Your task to perform on an android device: Open Amazon Image 0: 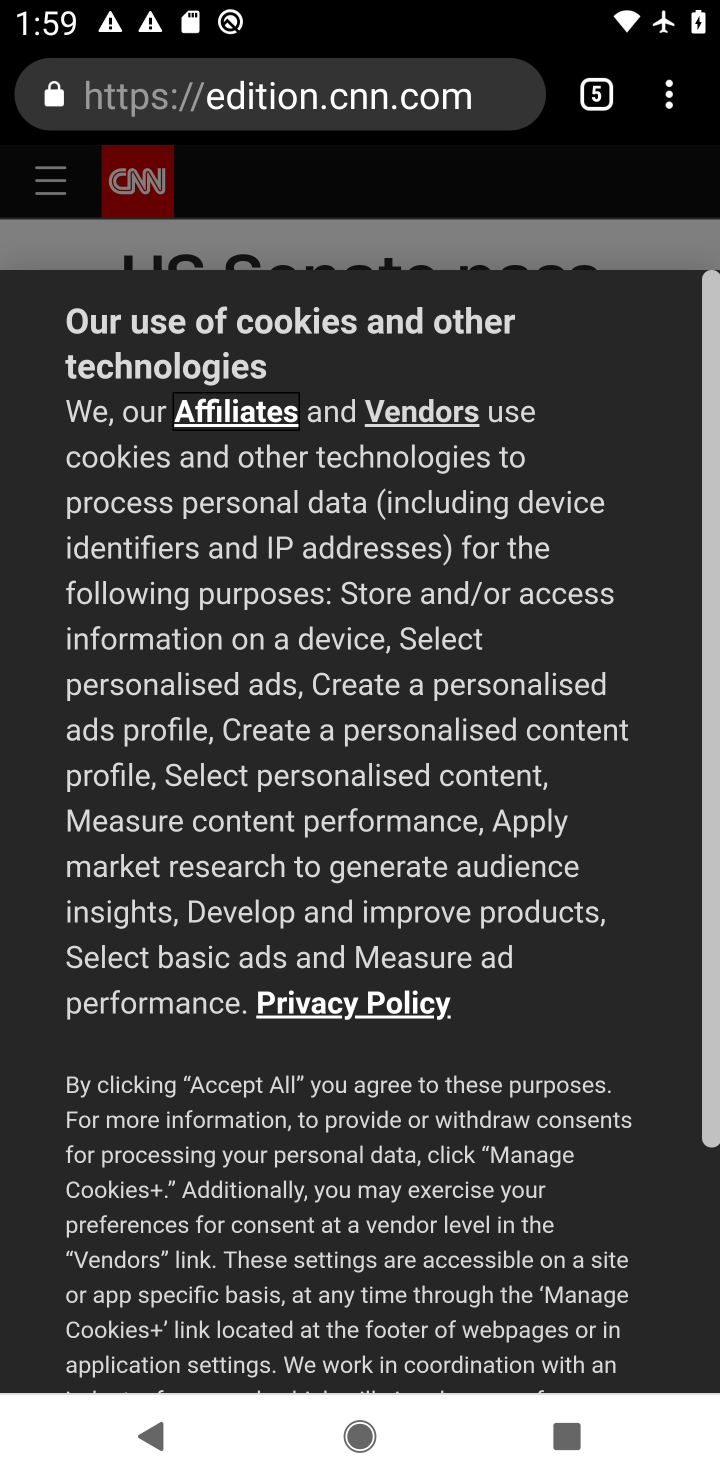
Step 0: click (360, 114)
Your task to perform on an android device: Open Amazon Image 1: 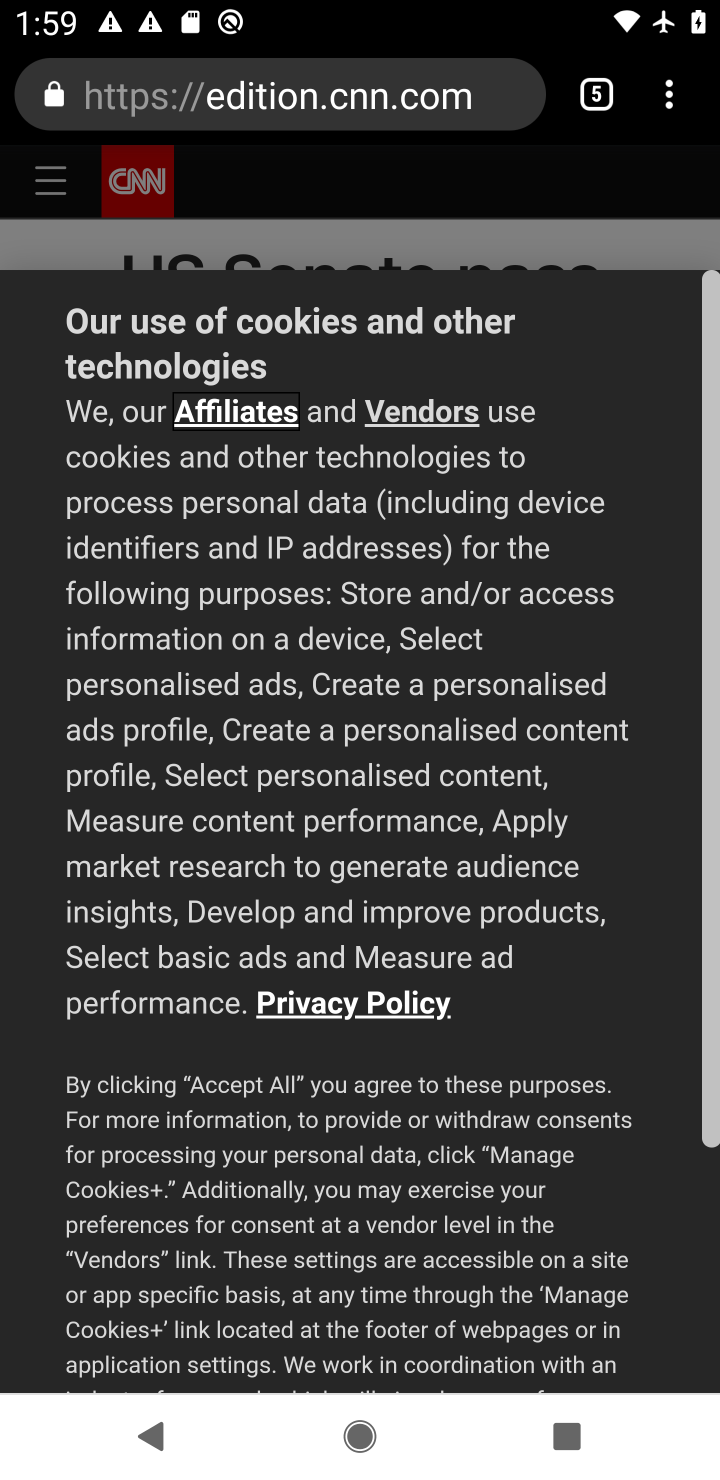
Step 1: click (360, 114)
Your task to perform on an android device: Open Amazon Image 2: 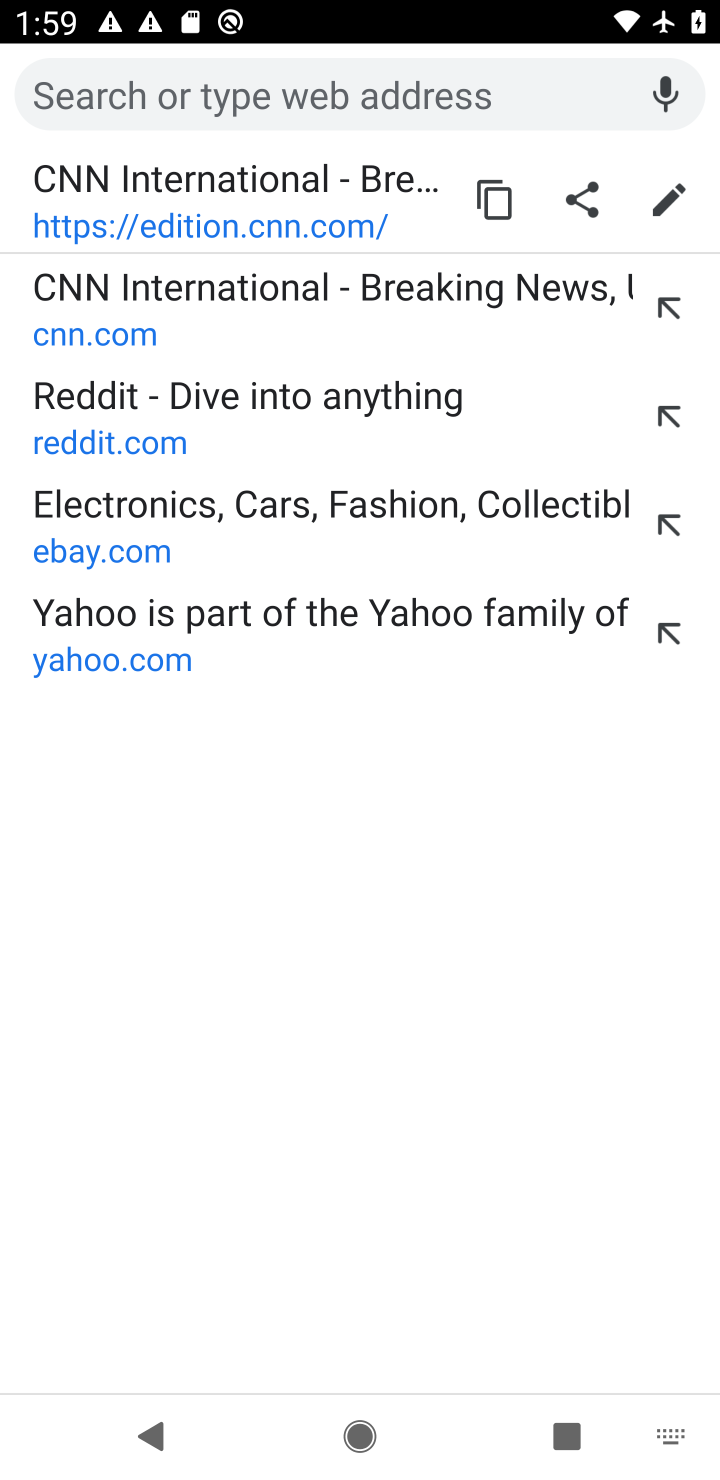
Step 2: click (389, 115)
Your task to perform on an android device: Open Amazon Image 3: 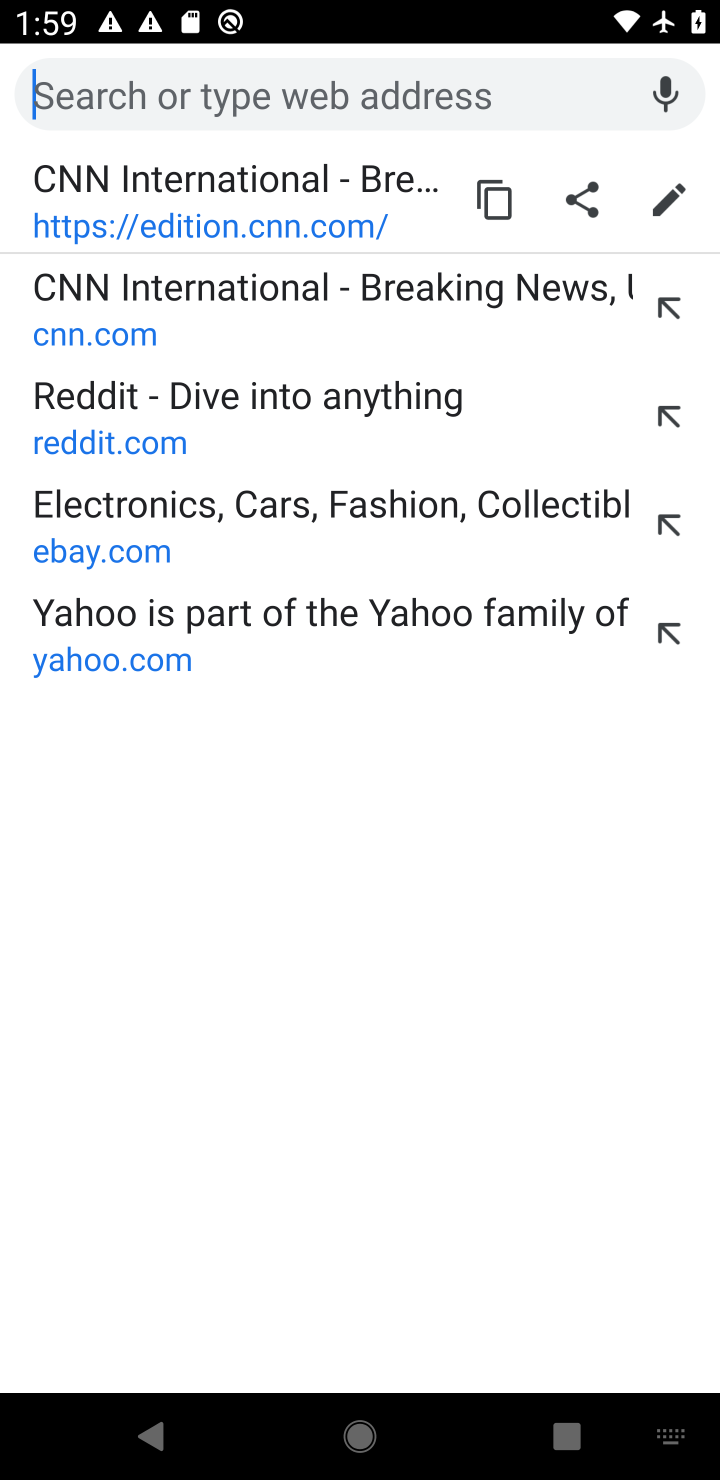
Step 3: type "amazon"
Your task to perform on an android device: Open Amazon Image 4: 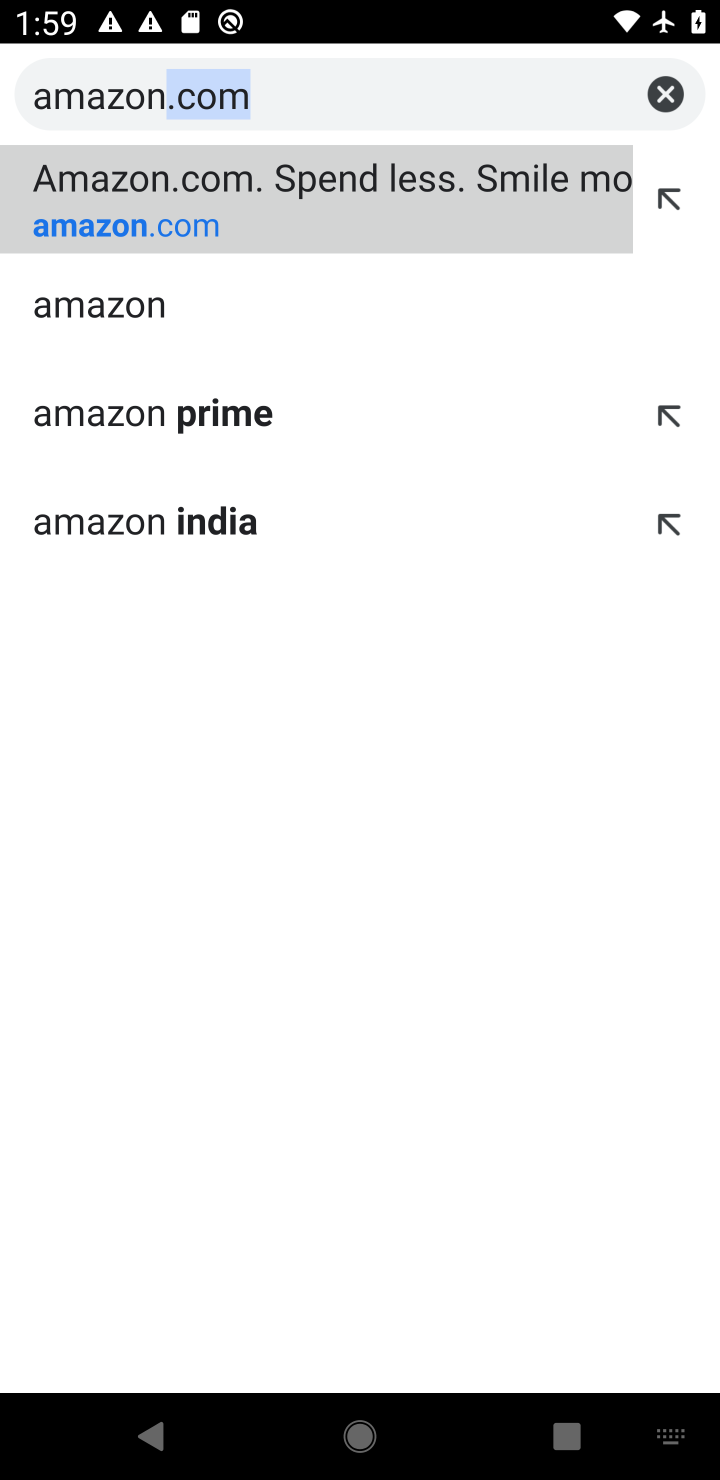
Step 4: click (76, 234)
Your task to perform on an android device: Open Amazon Image 5: 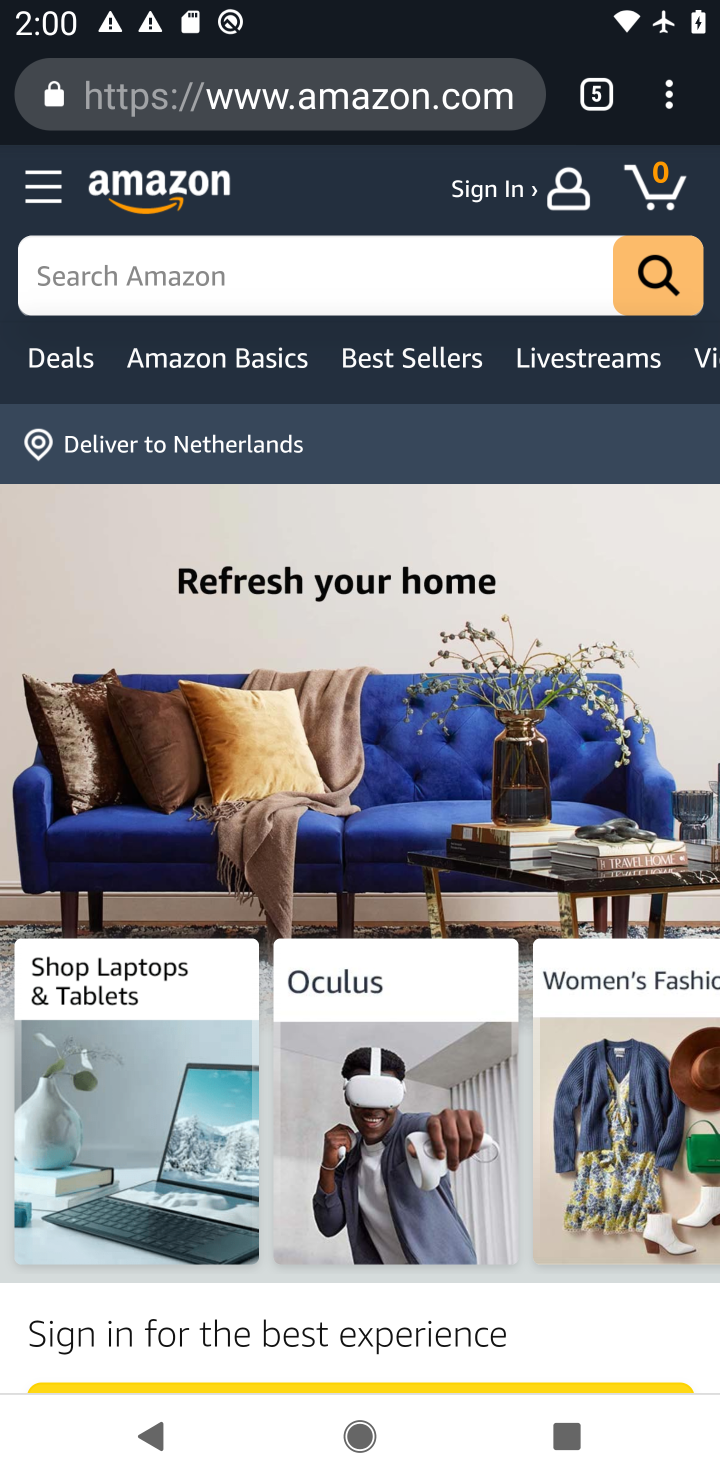
Step 5: task complete